Your task to perform on an android device: toggle improve location accuracy Image 0: 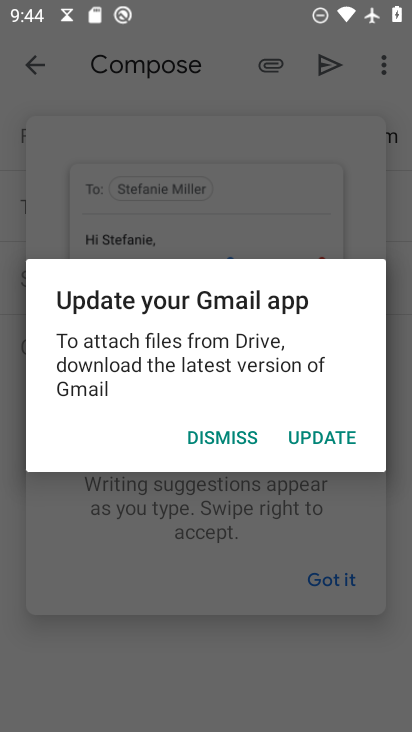
Step 0: press home button
Your task to perform on an android device: toggle improve location accuracy Image 1: 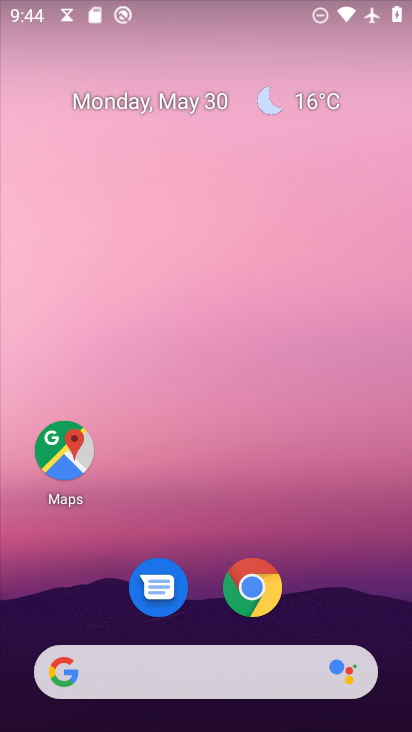
Step 1: drag from (109, 669) to (291, 99)
Your task to perform on an android device: toggle improve location accuracy Image 2: 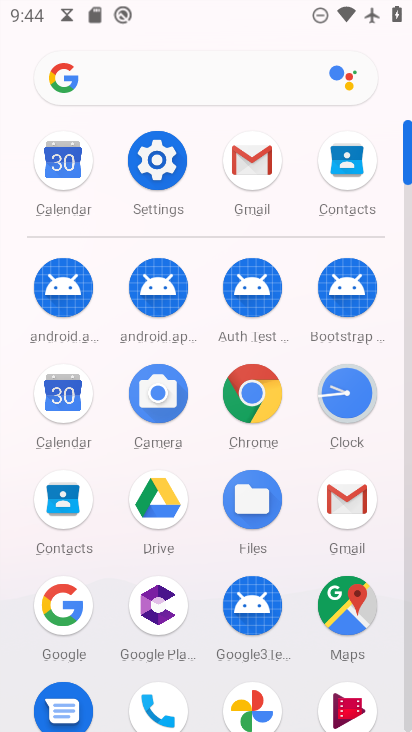
Step 2: click (172, 163)
Your task to perform on an android device: toggle improve location accuracy Image 3: 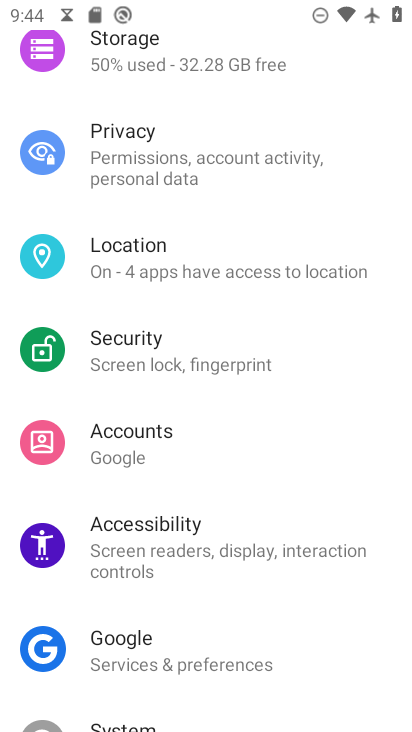
Step 3: click (146, 260)
Your task to perform on an android device: toggle improve location accuracy Image 4: 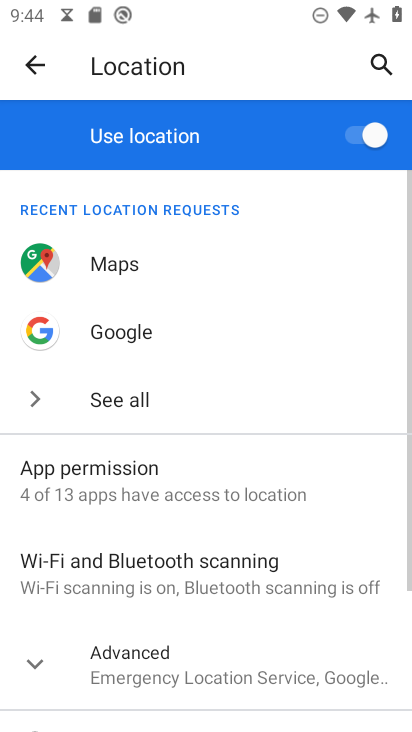
Step 4: click (178, 670)
Your task to perform on an android device: toggle improve location accuracy Image 5: 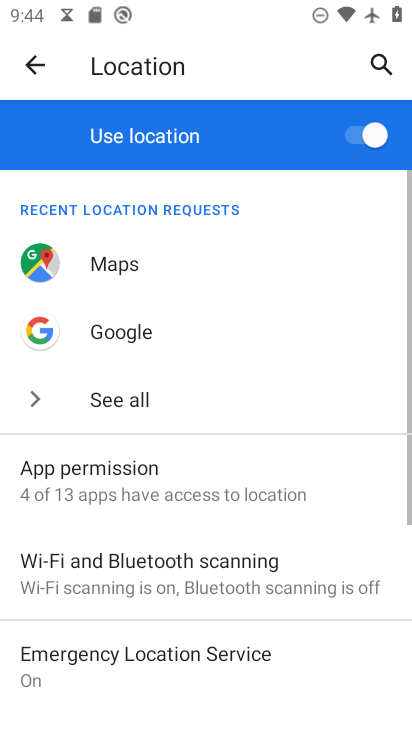
Step 5: drag from (214, 595) to (325, 244)
Your task to perform on an android device: toggle improve location accuracy Image 6: 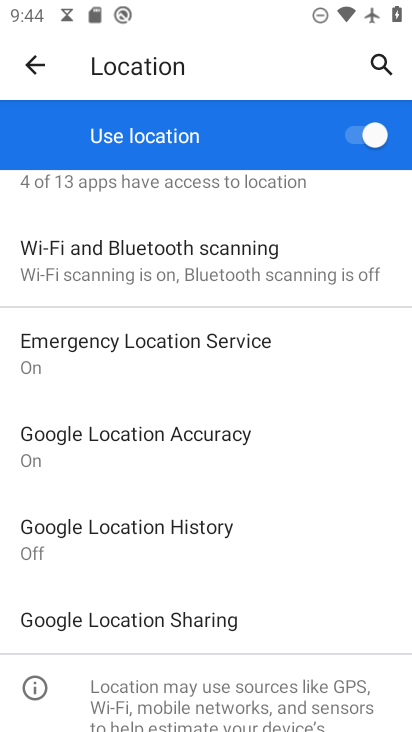
Step 6: click (150, 439)
Your task to perform on an android device: toggle improve location accuracy Image 7: 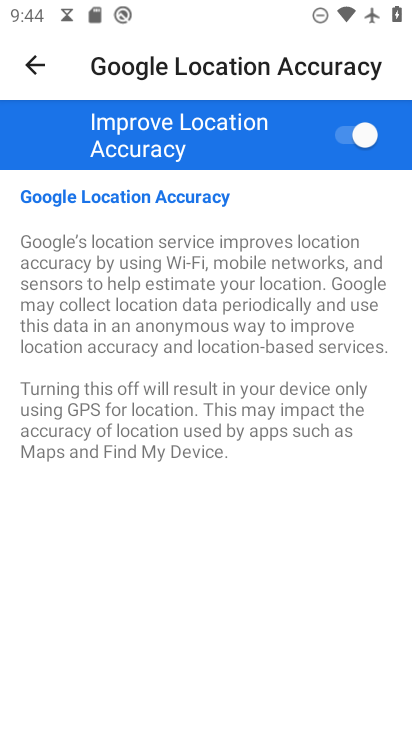
Step 7: click (351, 136)
Your task to perform on an android device: toggle improve location accuracy Image 8: 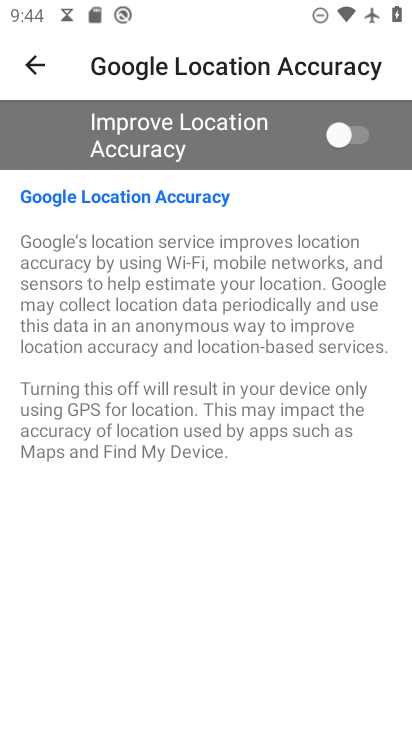
Step 8: task complete